Your task to perform on an android device: Open Google Maps Image 0: 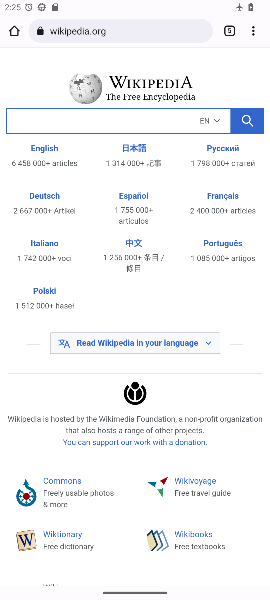
Step 0: press home button
Your task to perform on an android device: Open Google Maps Image 1: 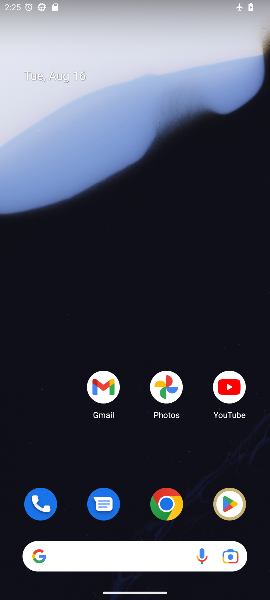
Step 1: drag from (138, 490) to (67, 30)
Your task to perform on an android device: Open Google Maps Image 2: 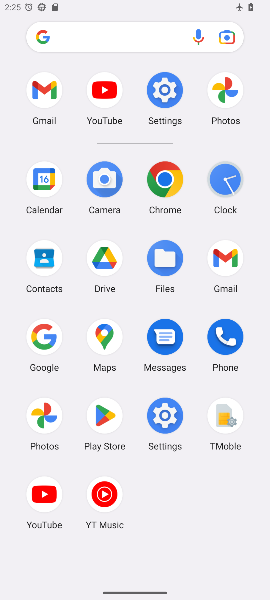
Step 2: click (103, 327)
Your task to perform on an android device: Open Google Maps Image 3: 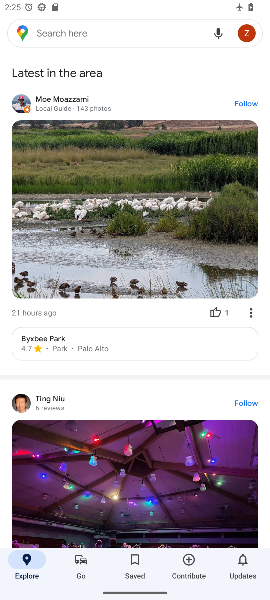
Step 3: task complete